Your task to perform on an android device: Go to Google Image 0: 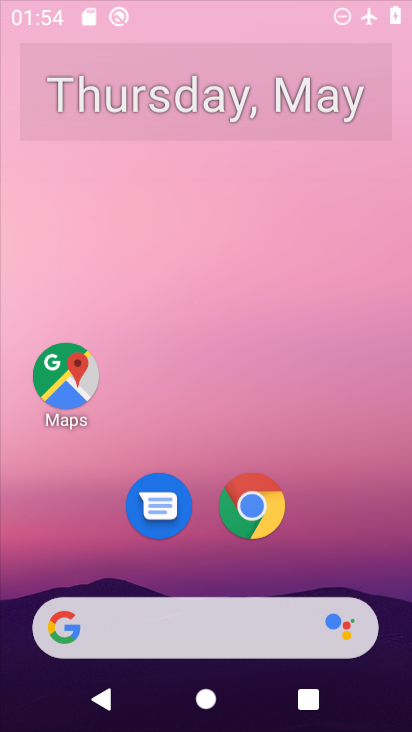
Step 0: click (256, 514)
Your task to perform on an android device: Go to Google Image 1: 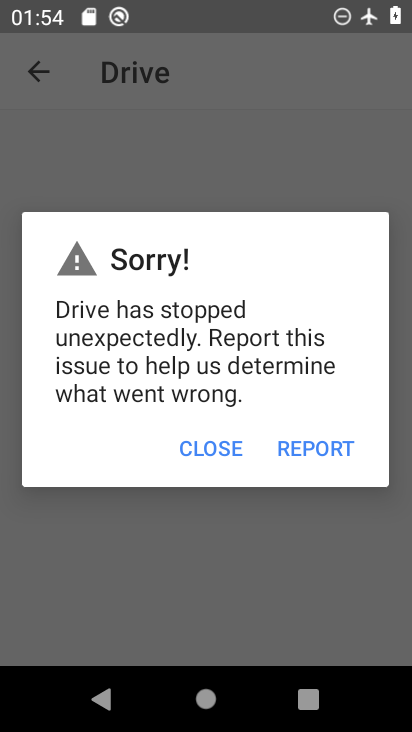
Step 1: click (237, 461)
Your task to perform on an android device: Go to Google Image 2: 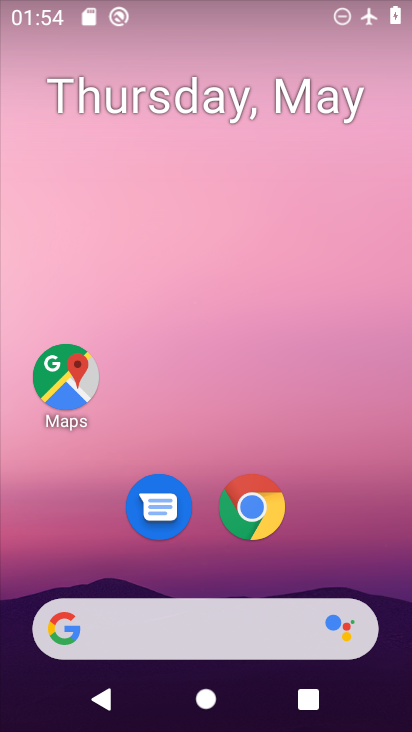
Step 2: click (246, 517)
Your task to perform on an android device: Go to Google Image 3: 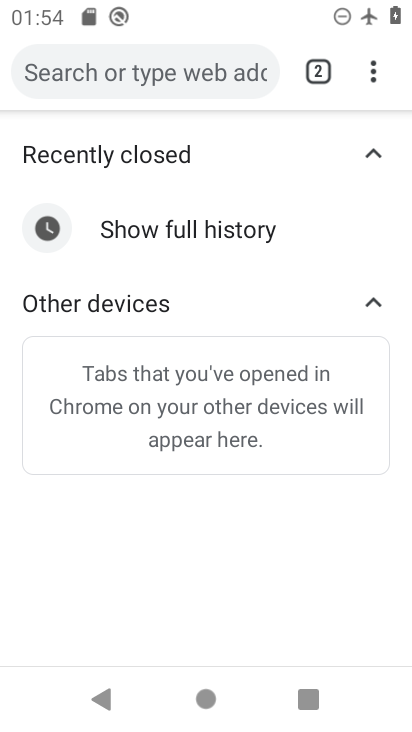
Step 3: click (195, 88)
Your task to perform on an android device: Go to Google Image 4: 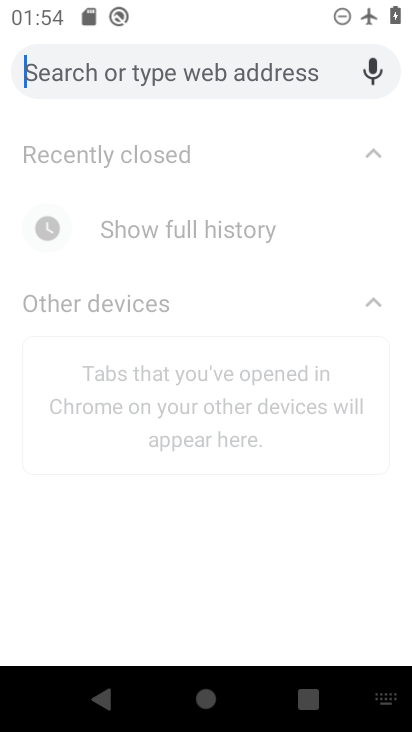
Step 4: type "google.com"
Your task to perform on an android device: Go to Google Image 5: 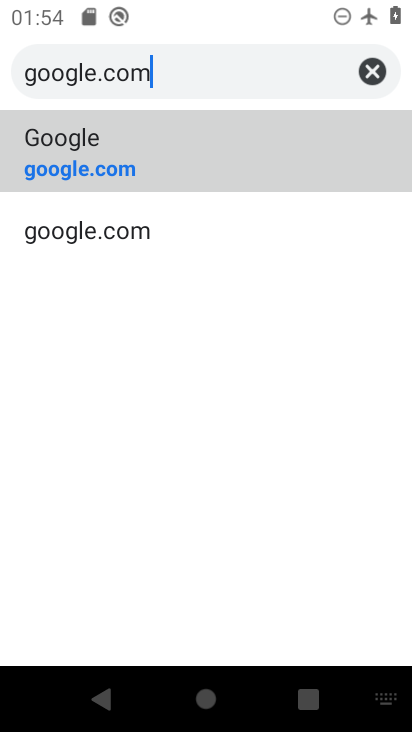
Step 5: click (180, 165)
Your task to perform on an android device: Go to Google Image 6: 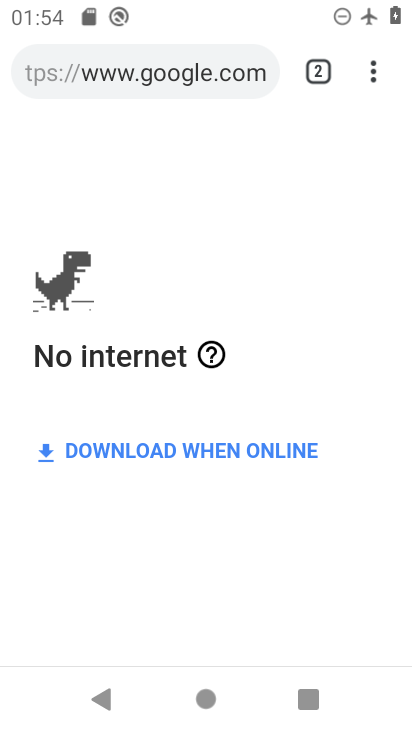
Step 6: task complete